Your task to perform on an android device: turn notification dots on Image 0: 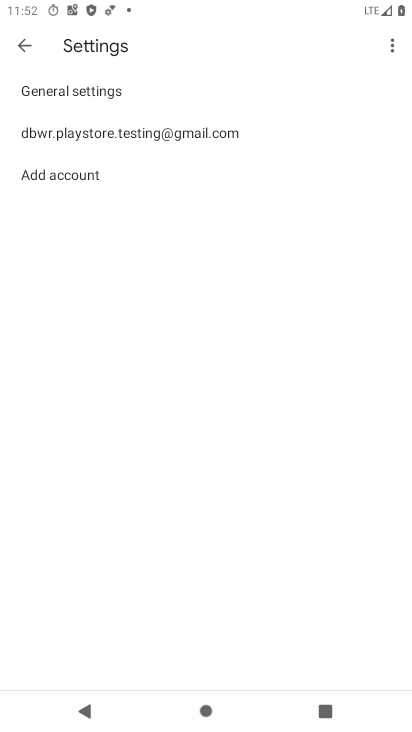
Step 0: press home button
Your task to perform on an android device: turn notification dots on Image 1: 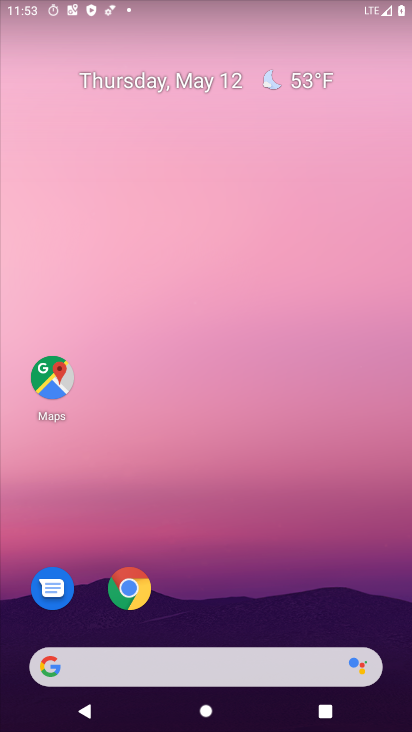
Step 1: drag from (295, 589) to (306, 55)
Your task to perform on an android device: turn notification dots on Image 2: 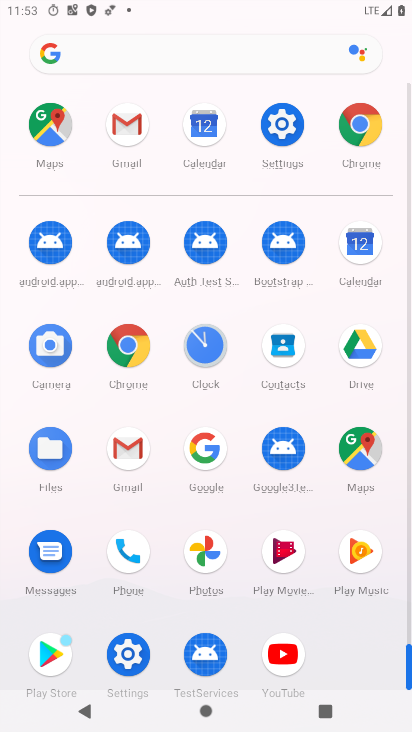
Step 2: click (285, 123)
Your task to perform on an android device: turn notification dots on Image 3: 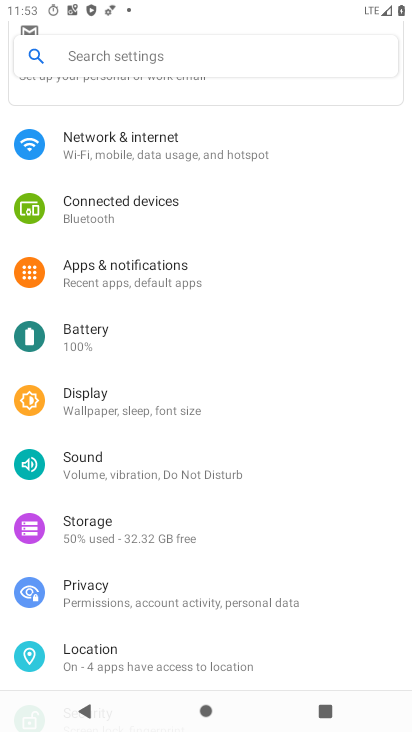
Step 3: click (111, 275)
Your task to perform on an android device: turn notification dots on Image 4: 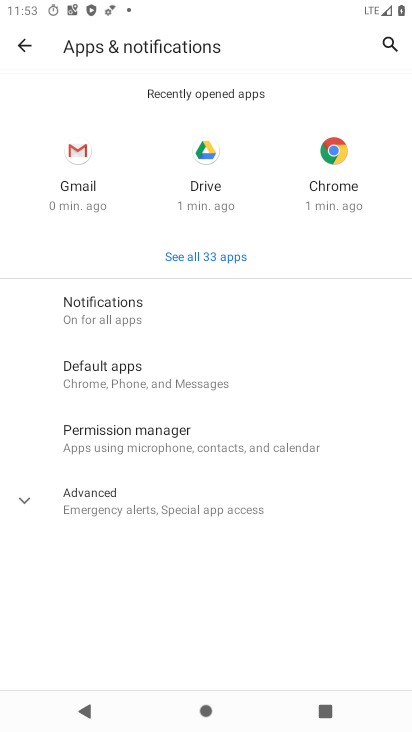
Step 4: click (89, 304)
Your task to perform on an android device: turn notification dots on Image 5: 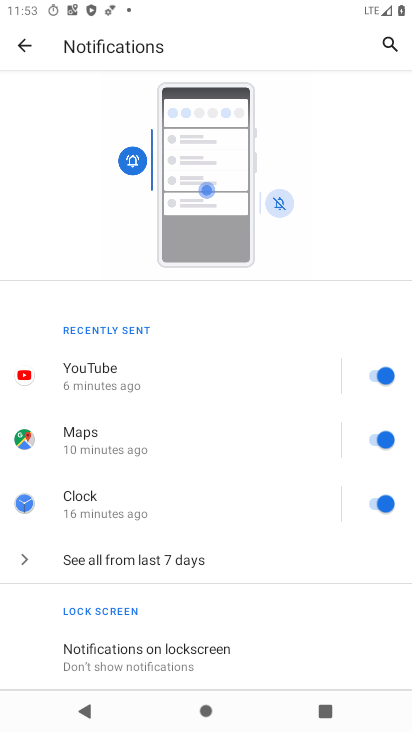
Step 5: drag from (189, 624) to (248, 133)
Your task to perform on an android device: turn notification dots on Image 6: 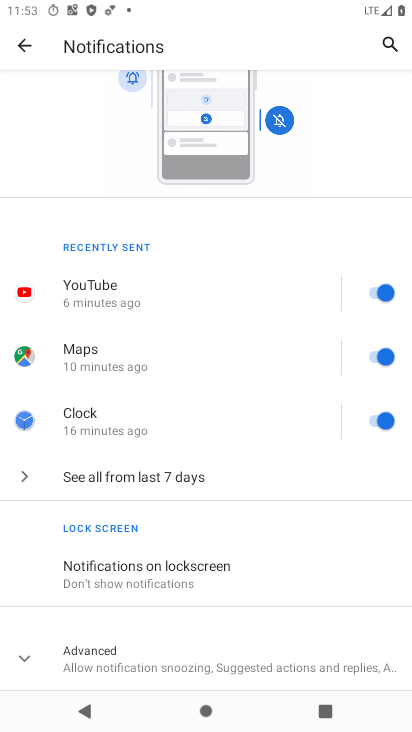
Step 6: click (146, 656)
Your task to perform on an android device: turn notification dots on Image 7: 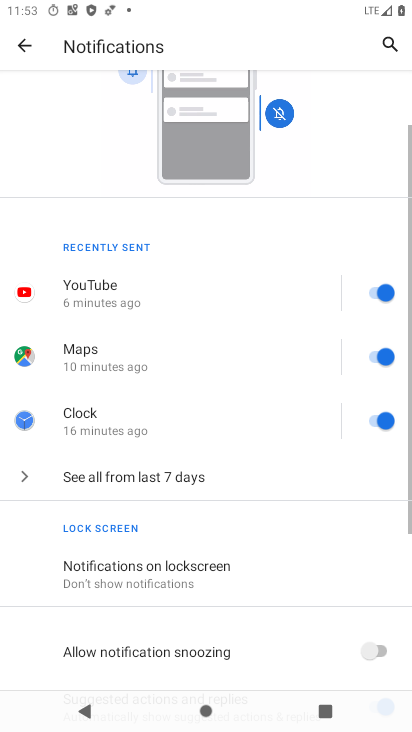
Step 7: task complete